Your task to perform on an android device: Search for Mexican restaurants on Maps Image 0: 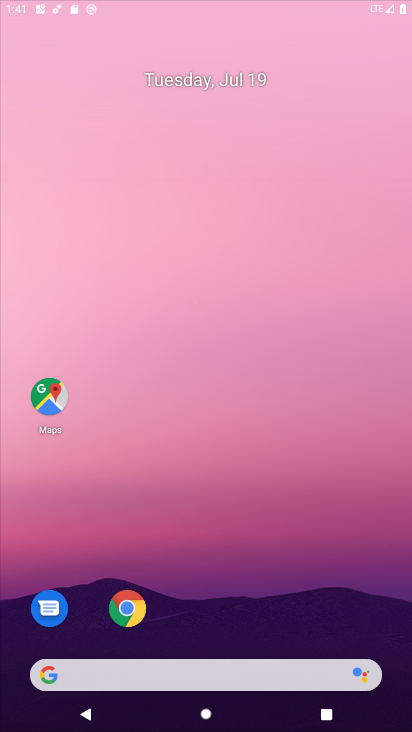
Step 0: drag from (253, 614) to (274, 187)
Your task to perform on an android device: Search for Mexican restaurants on Maps Image 1: 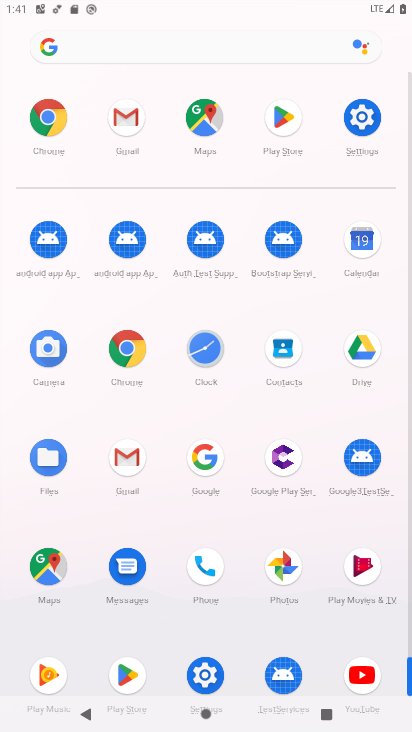
Step 1: click (50, 569)
Your task to perform on an android device: Search for Mexican restaurants on Maps Image 2: 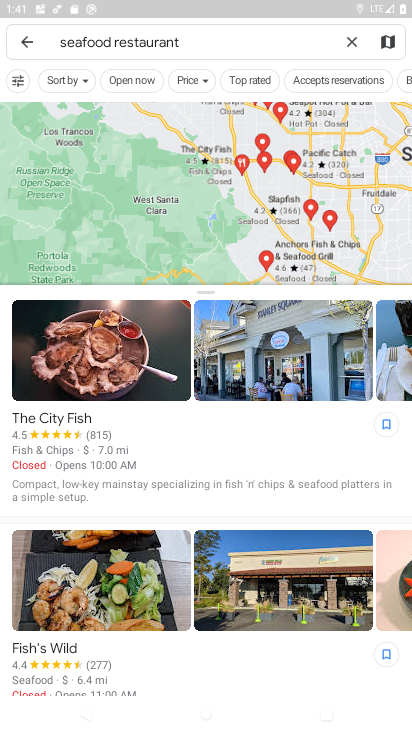
Step 2: click (345, 41)
Your task to perform on an android device: Search for Mexican restaurants on Maps Image 3: 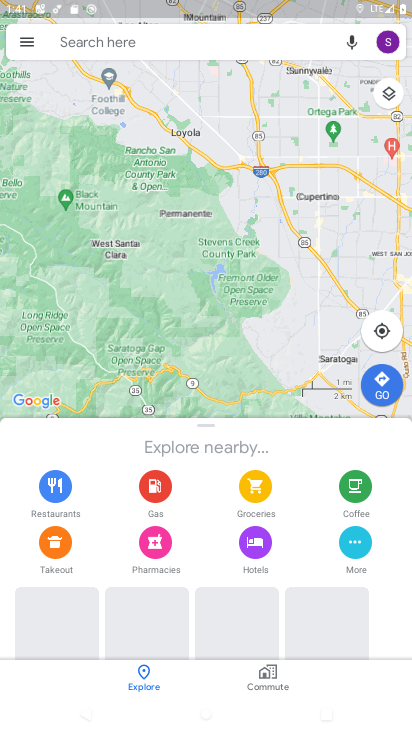
Step 3: click (223, 37)
Your task to perform on an android device: Search for Mexican restaurants on Maps Image 4: 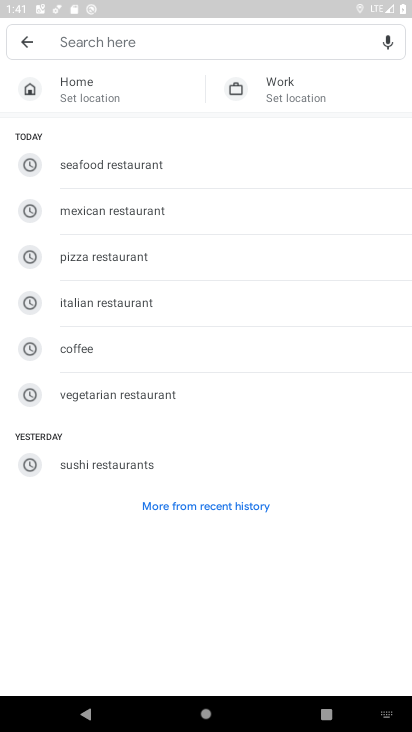
Step 4: click (154, 211)
Your task to perform on an android device: Search for Mexican restaurants on Maps Image 5: 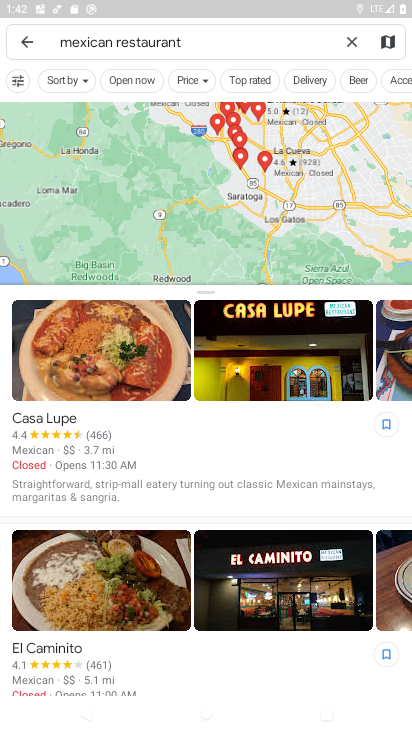
Step 5: task complete